Your task to perform on an android device: turn off wifi Image 0: 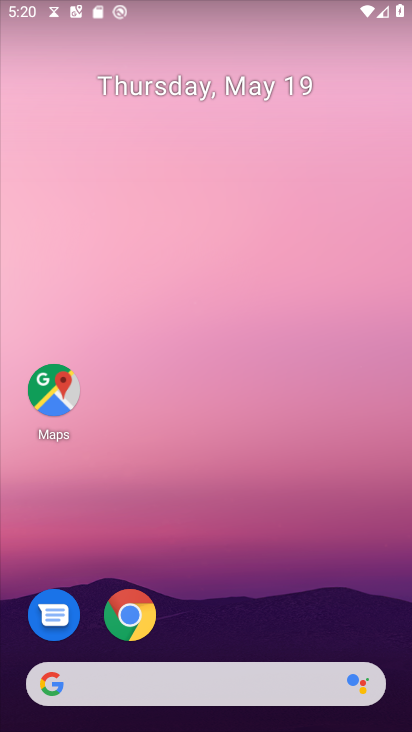
Step 0: drag from (187, 649) to (304, 62)
Your task to perform on an android device: turn off wifi Image 1: 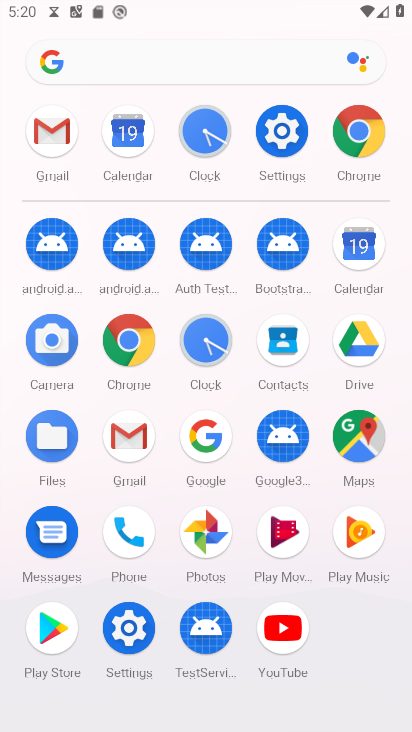
Step 1: click (283, 140)
Your task to perform on an android device: turn off wifi Image 2: 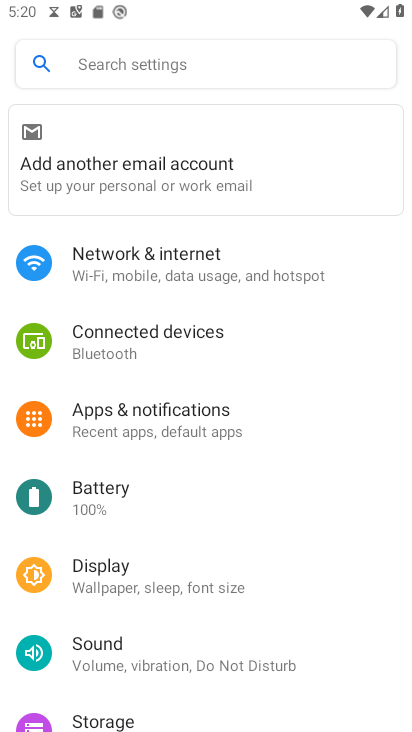
Step 2: click (244, 283)
Your task to perform on an android device: turn off wifi Image 3: 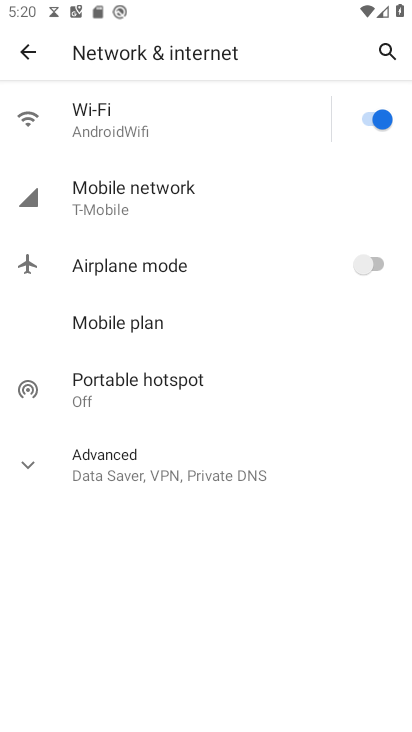
Step 3: click (381, 119)
Your task to perform on an android device: turn off wifi Image 4: 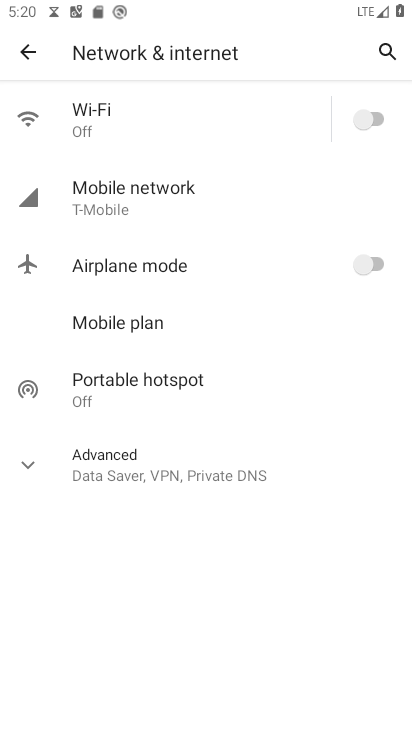
Step 4: task complete